Your task to perform on an android device: Go to sound settings Image 0: 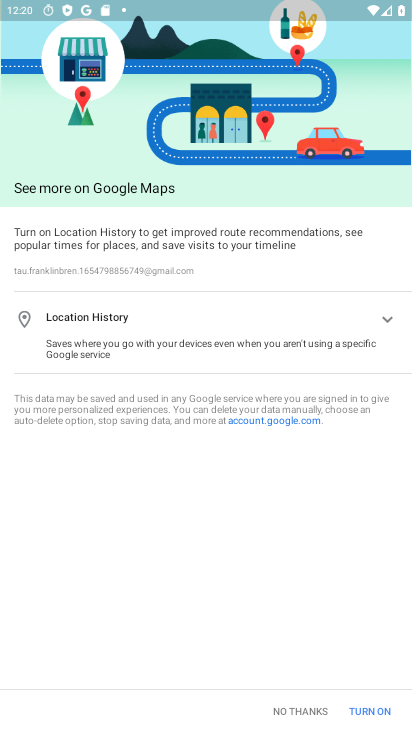
Step 0: click (196, 432)
Your task to perform on an android device: Go to sound settings Image 1: 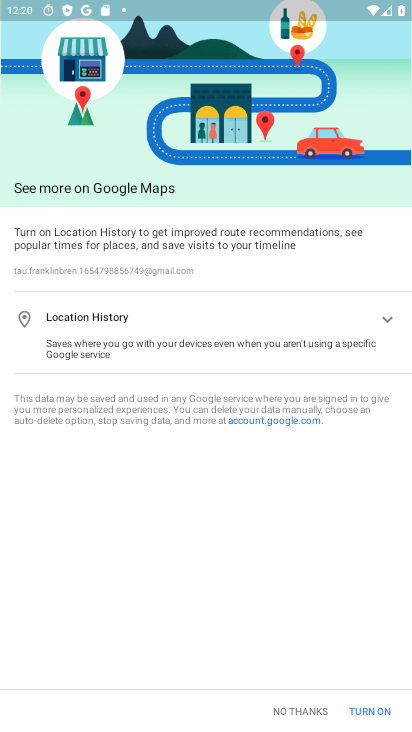
Step 1: press home button
Your task to perform on an android device: Go to sound settings Image 2: 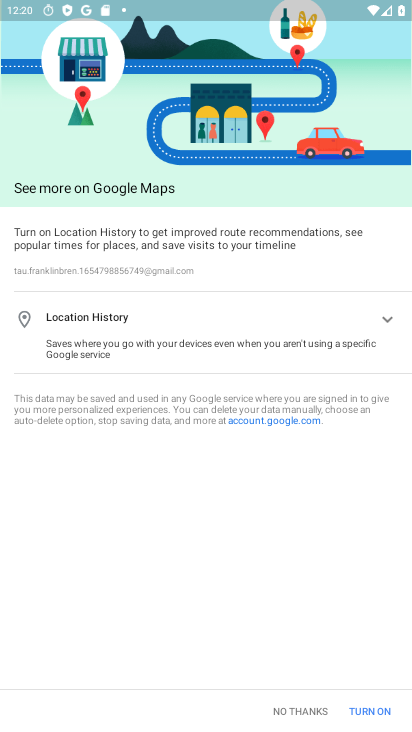
Step 2: press home button
Your task to perform on an android device: Go to sound settings Image 3: 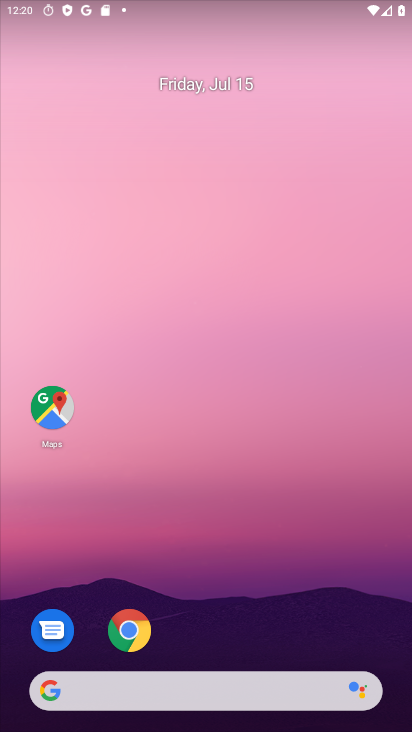
Step 3: drag from (200, 614) to (263, 154)
Your task to perform on an android device: Go to sound settings Image 4: 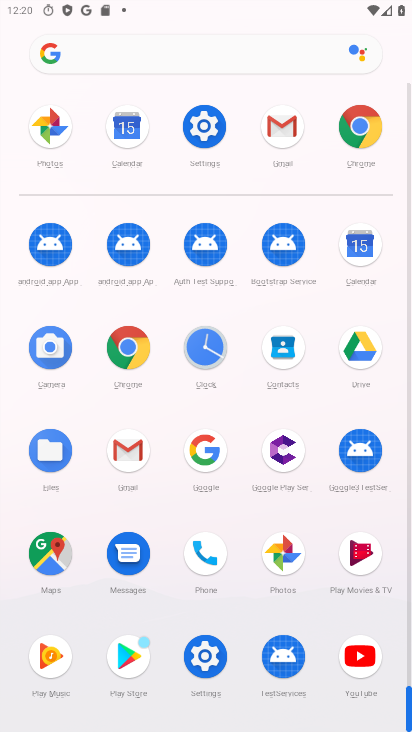
Step 4: click (212, 130)
Your task to perform on an android device: Go to sound settings Image 5: 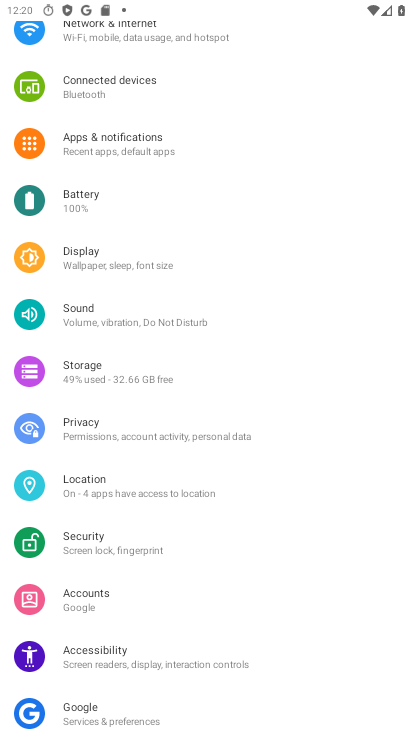
Step 5: drag from (196, 590) to (196, 420)
Your task to perform on an android device: Go to sound settings Image 6: 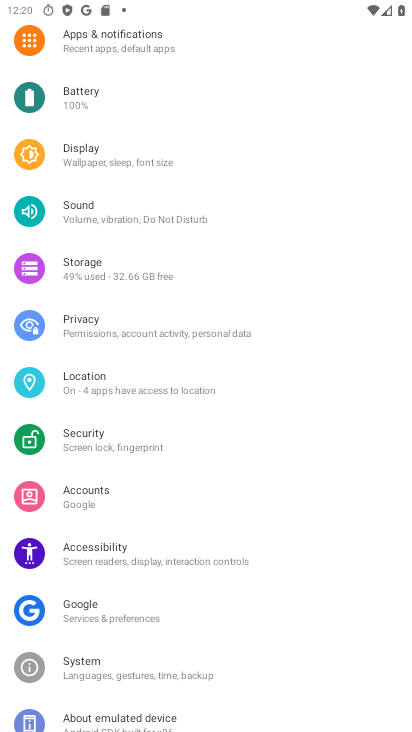
Step 6: click (103, 212)
Your task to perform on an android device: Go to sound settings Image 7: 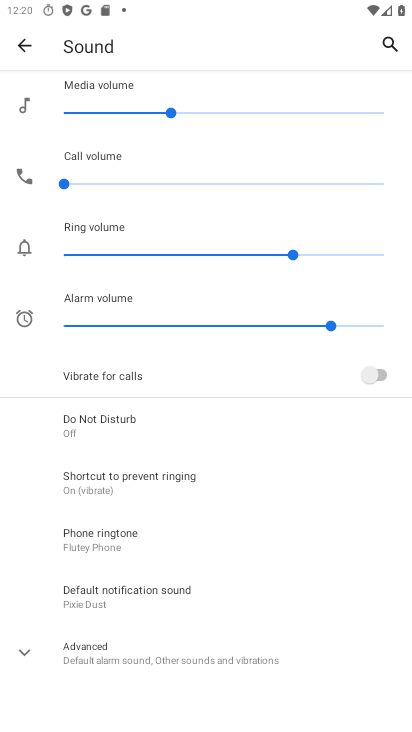
Step 7: task complete